Your task to perform on an android device: turn off priority inbox in the gmail app Image 0: 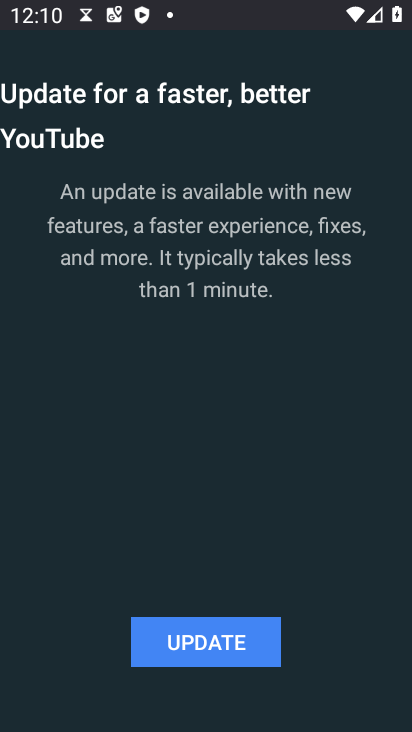
Step 0: press back button
Your task to perform on an android device: turn off priority inbox in the gmail app Image 1: 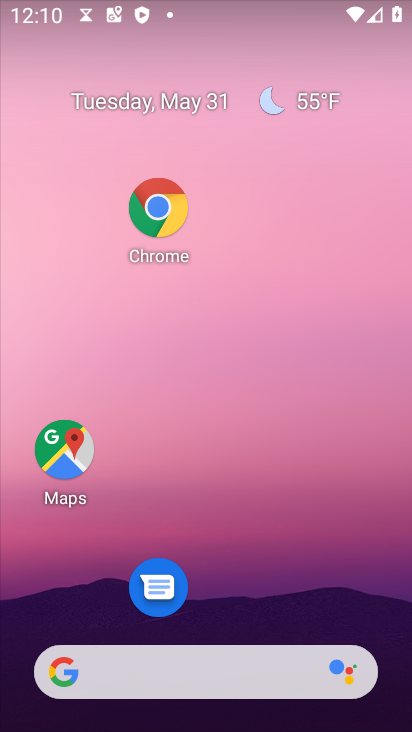
Step 1: drag from (234, 645) to (217, 225)
Your task to perform on an android device: turn off priority inbox in the gmail app Image 2: 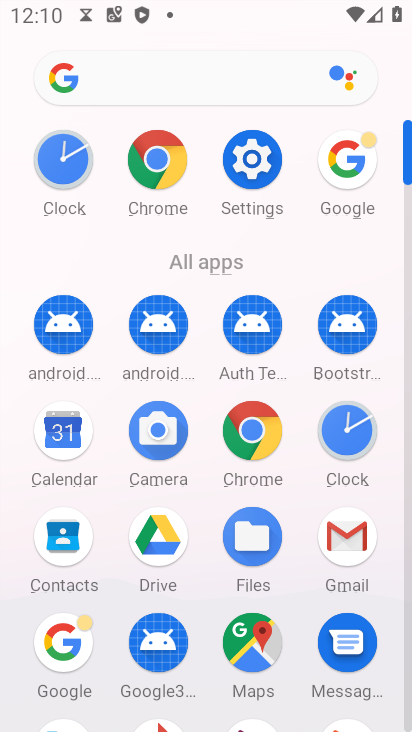
Step 2: click (336, 562)
Your task to perform on an android device: turn off priority inbox in the gmail app Image 3: 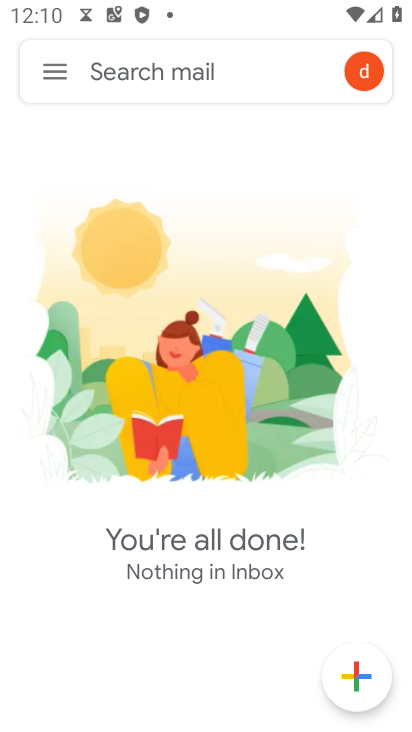
Step 3: click (61, 76)
Your task to perform on an android device: turn off priority inbox in the gmail app Image 4: 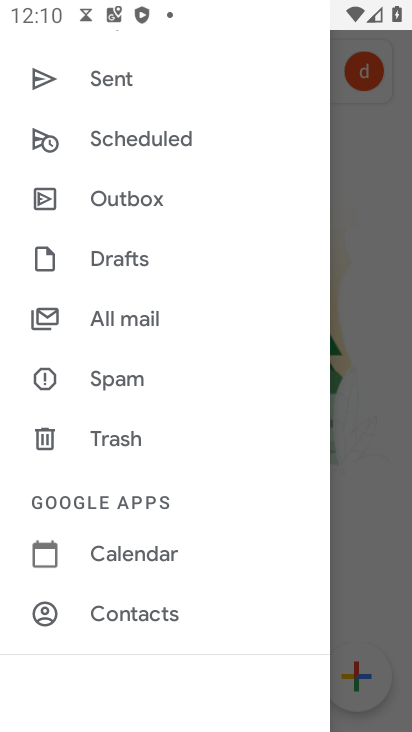
Step 4: drag from (136, 670) to (143, 382)
Your task to perform on an android device: turn off priority inbox in the gmail app Image 5: 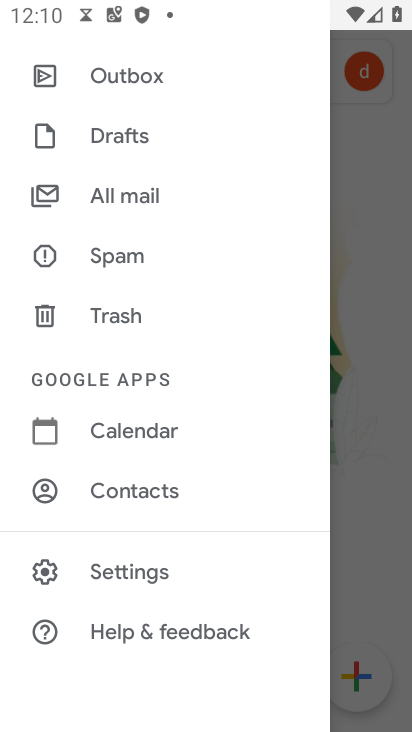
Step 5: click (100, 564)
Your task to perform on an android device: turn off priority inbox in the gmail app Image 6: 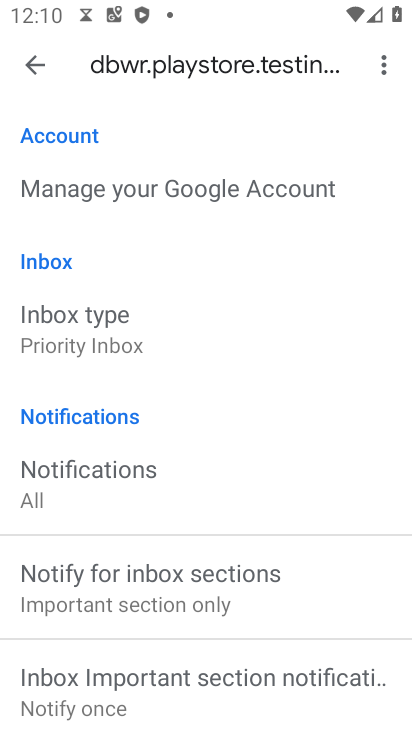
Step 6: click (91, 346)
Your task to perform on an android device: turn off priority inbox in the gmail app Image 7: 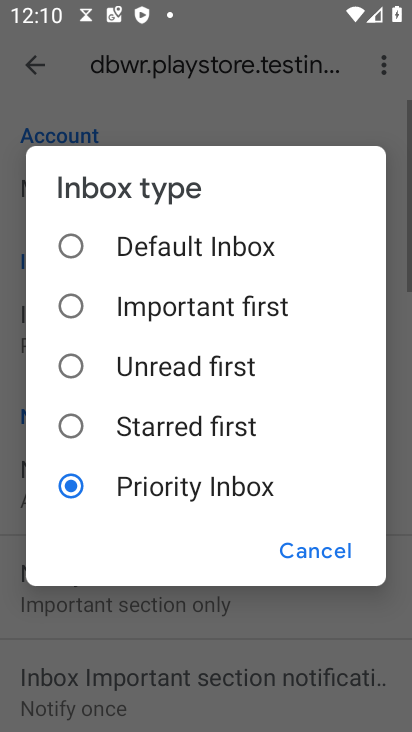
Step 7: click (91, 346)
Your task to perform on an android device: turn off priority inbox in the gmail app Image 8: 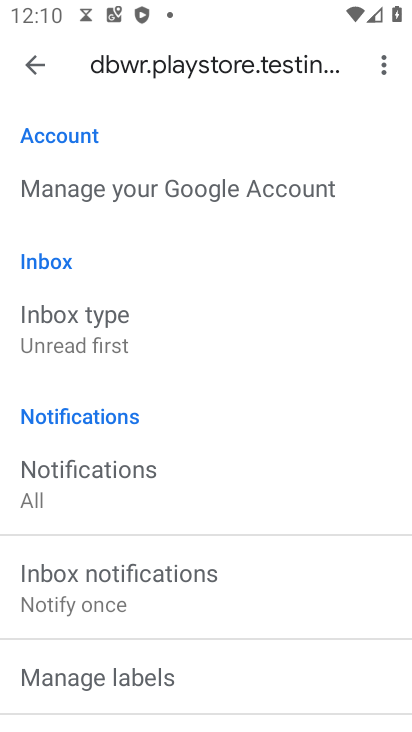
Step 8: task complete